Your task to perform on an android device: check the backup settings in the google photos Image 0: 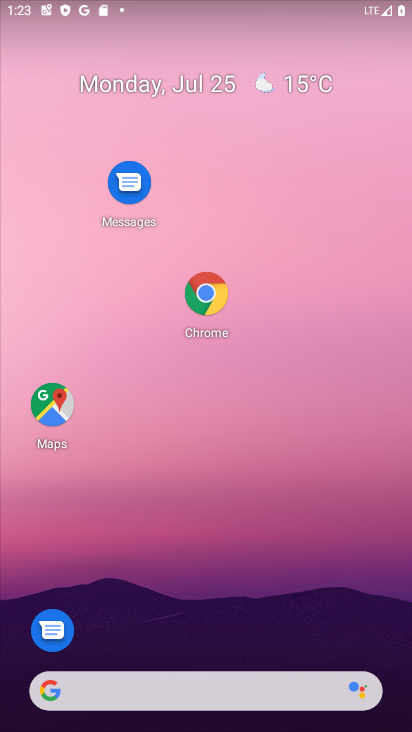
Step 0: press home button
Your task to perform on an android device: check the backup settings in the google photos Image 1: 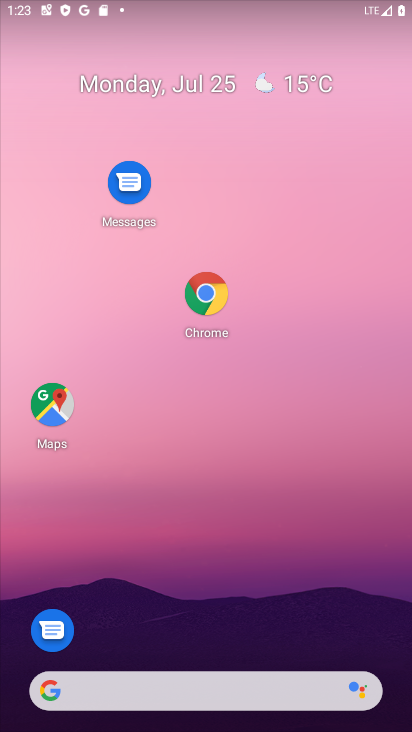
Step 1: drag from (292, 613) to (347, 279)
Your task to perform on an android device: check the backup settings in the google photos Image 2: 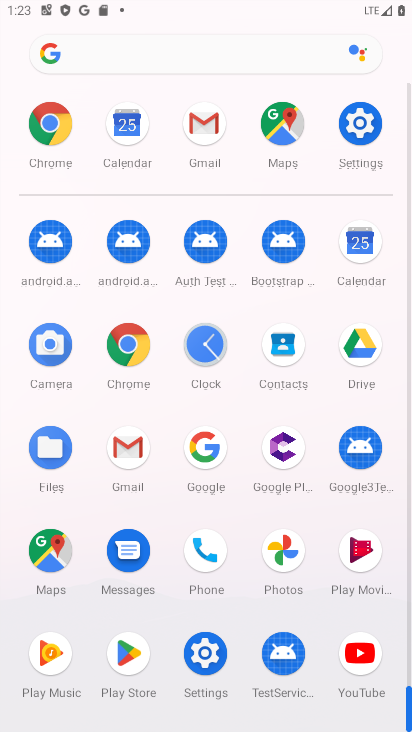
Step 2: click (266, 547)
Your task to perform on an android device: check the backup settings in the google photos Image 3: 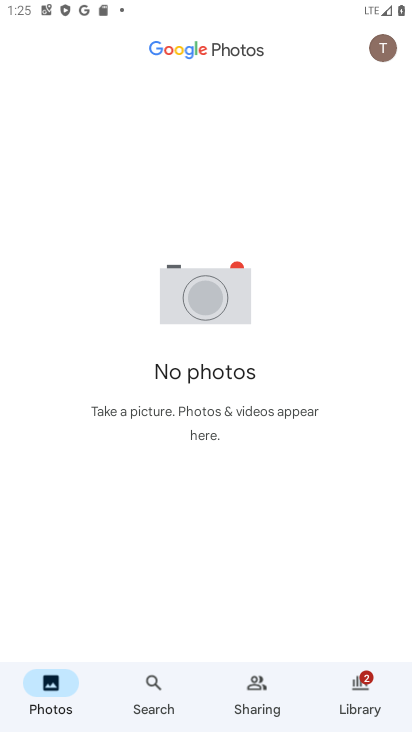
Step 3: click (391, 41)
Your task to perform on an android device: check the backup settings in the google photos Image 4: 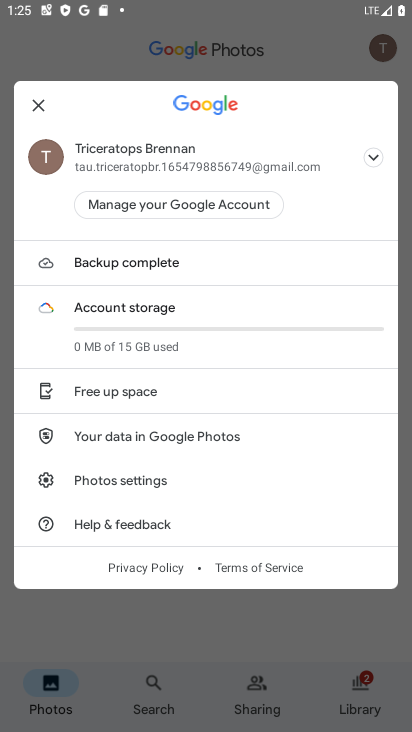
Step 4: click (100, 484)
Your task to perform on an android device: check the backup settings in the google photos Image 5: 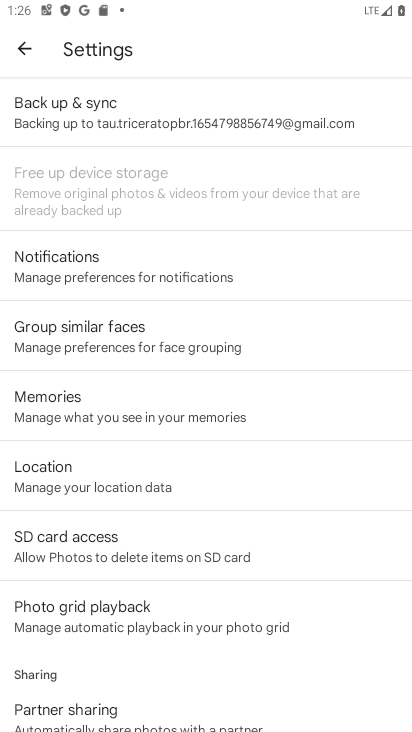
Step 5: click (76, 115)
Your task to perform on an android device: check the backup settings in the google photos Image 6: 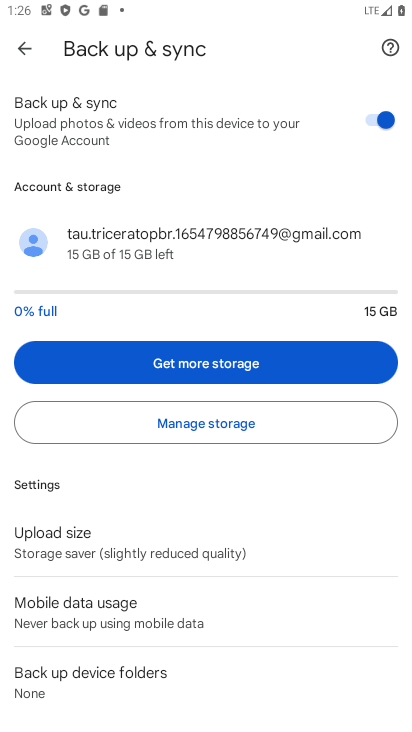
Step 6: task complete